Your task to perform on an android device: Search for seafood restaurants on Google Maps Image 0: 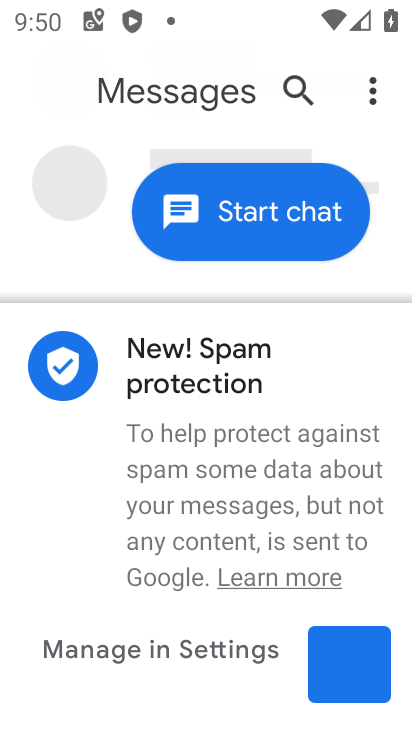
Step 0: press home button
Your task to perform on an android device: Search for seafood restaurants on Google Maps Image 1: 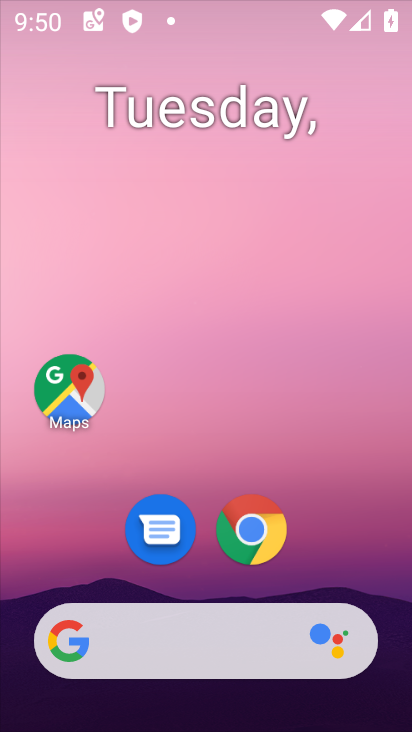
Step 1: drag from (231, 673) to (288, 95)
Your task to perform on an android device: Search for seafood restaurants on Google Maps Image 2: 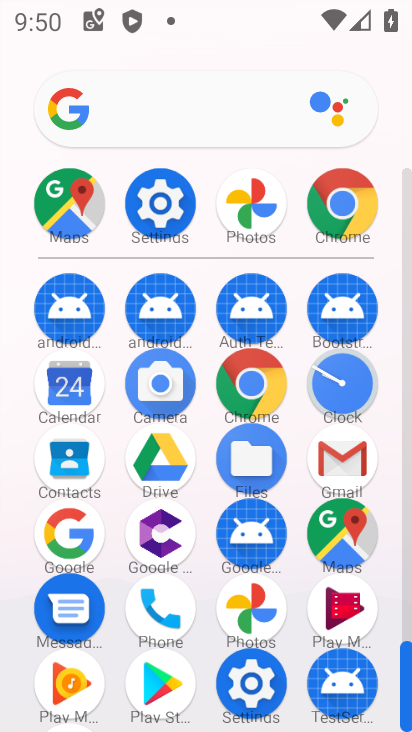
Step 2: click (348, 519)
Your task to perform on an android device: Search for seafood restaurants on Google Maps Image 3: 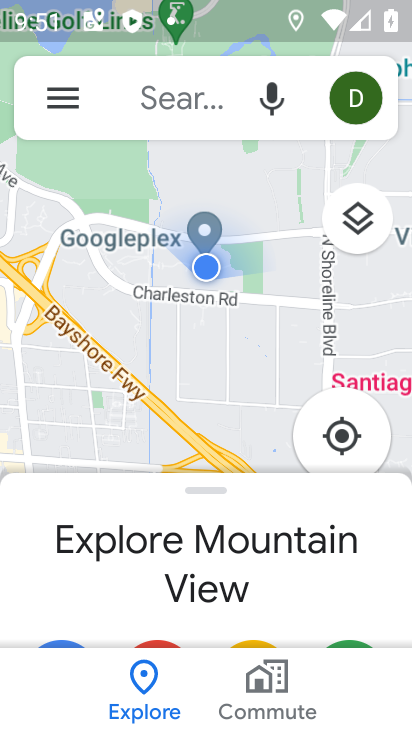
Step 3: click (206, 118)
Your task to perform on an android device: Search for seafood restaurants on Google Maps Image 4: 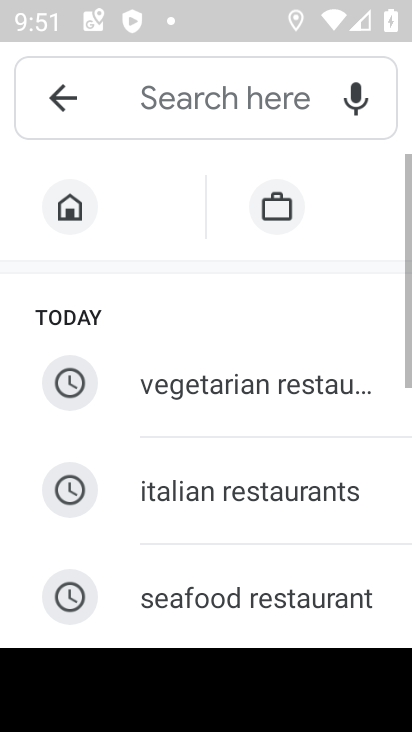
Step 4: drag from (194, 467) to (358, 194)
Your task to perform on an android device: Search for seafood restaurants on Google Maps Image 5: 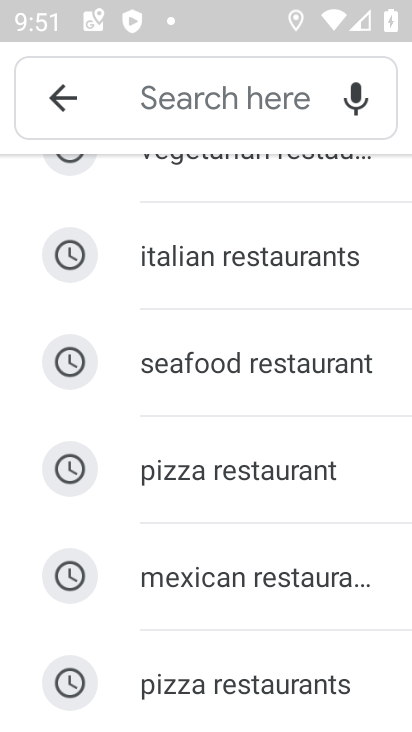
Step 5: drag from (190, 613) to (330, 157)
Your task to perform on an android device: Search for seafood restaurants on Google Maps Image 6: 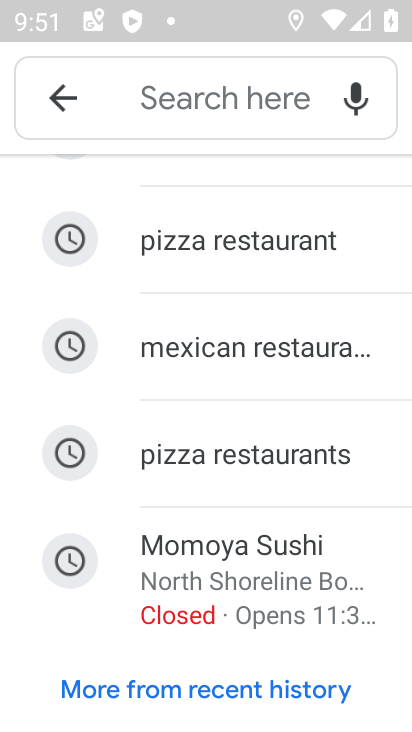
Step 6: drag from (205, 427) to (316, 56)
Your task to perform on an android device: Search for seafood restaurants on Google Maps Image 7: 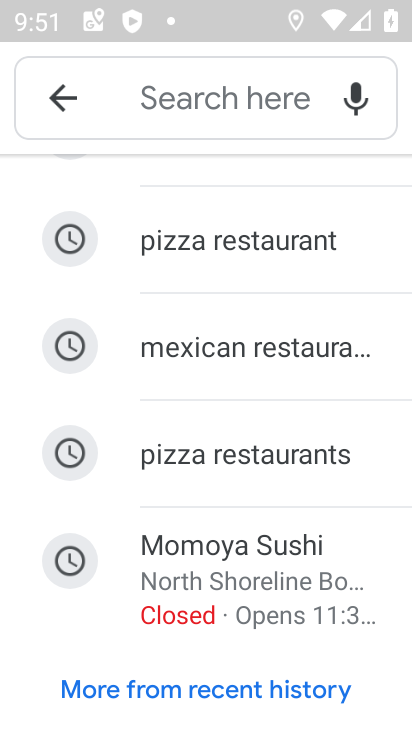
Step 7: click (208, 113)
Your task to perform on an android device: Search for seafood restaurants on Google Maps Image 8: 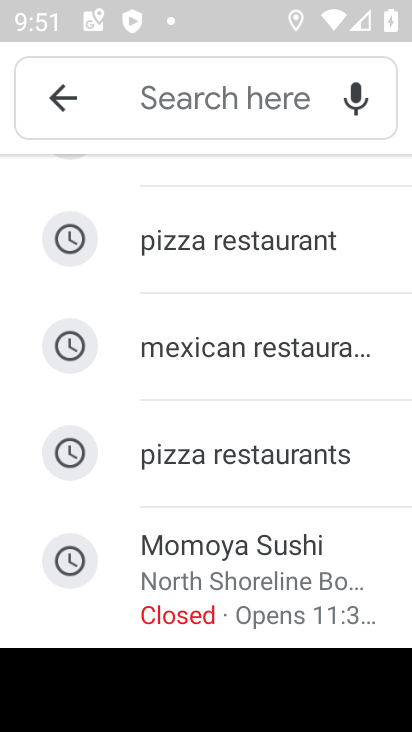
Step 8: type "seafood restaurants"
Your task to perform on an android device: Search for seafood restaurants on Google Maps Image 9: 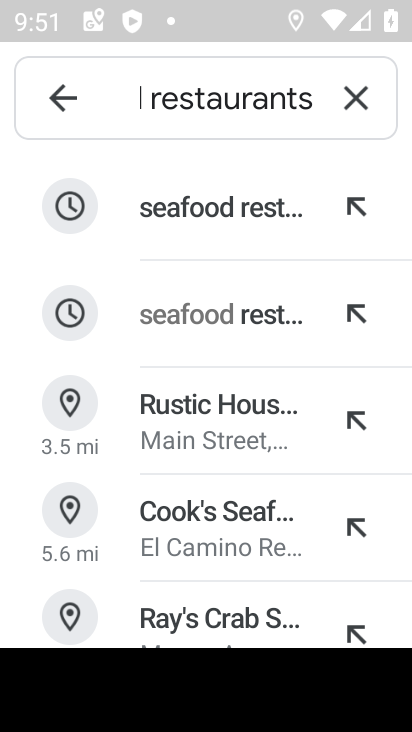
Step 9: click (268, 234)
Your task to perform on an android device: Search for seafood restaurants on Google Maps Image 10: 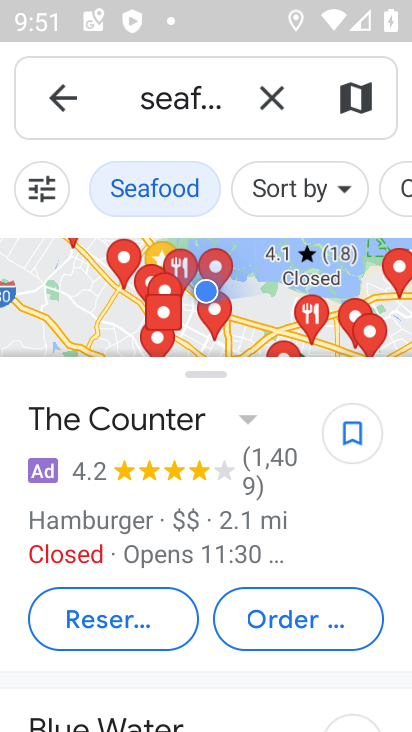
Step 10: task complete